Your task to perform on an android device: toggle show notifications on the lock screen Image 0: 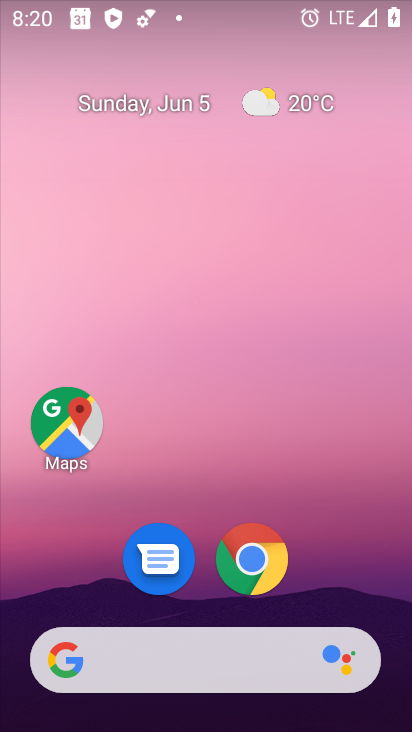
Step 0: drag from (359, 425) to (350, 83)
Your task to perform on an android device: toggle show notifications on the lock screen Image 1: 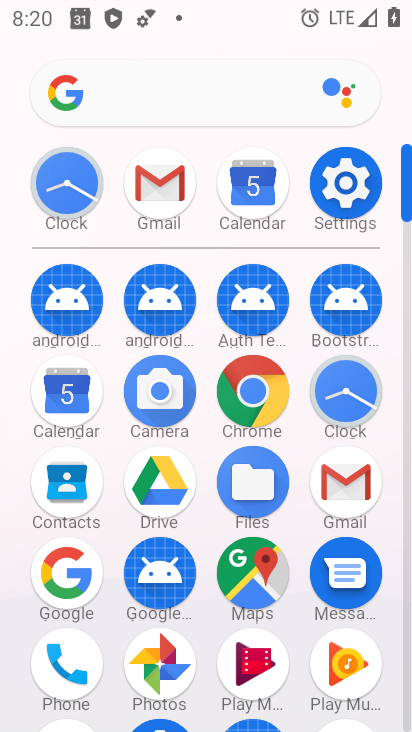
Step 1: click (339, 179)
Your task to perform on an android device: toggle show notifications on the lock screen Image 2: 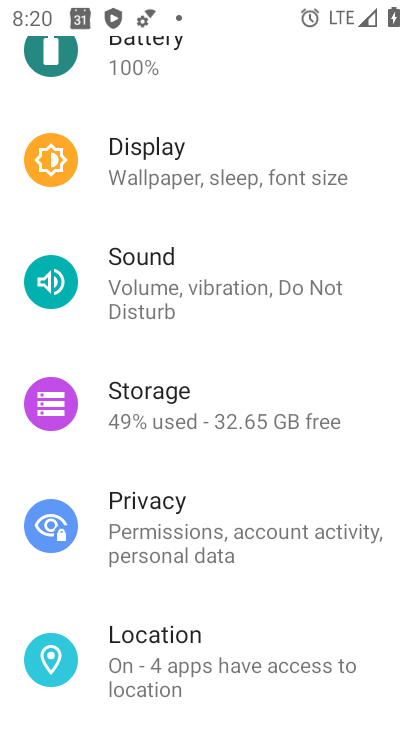
Step 2: drag from (167, 158) to (244, 728)
Your task to perform on an android device: toggle show notifications on the lock screen Image 3: 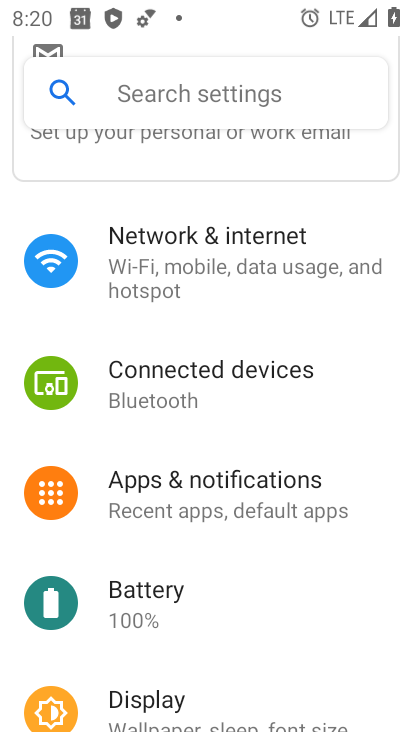
Step 3: click (272, 494)
Your task to perform on an android device: toggle show notifications on the lock screen Image 4: 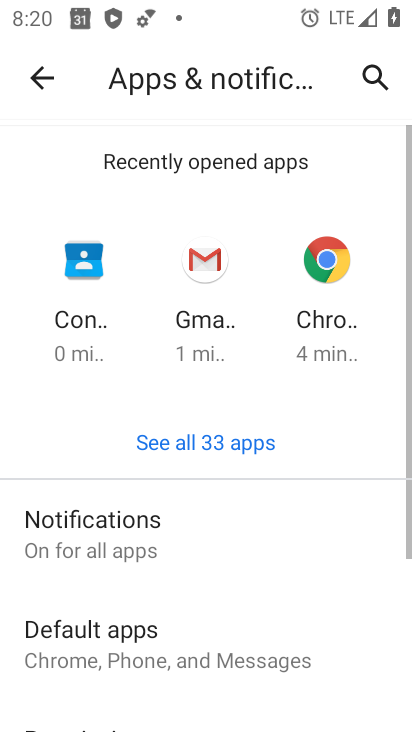
Step 4: click (155, 543)
Your task to perform on an android device: toggle show notifications on the lock screen Image 5: 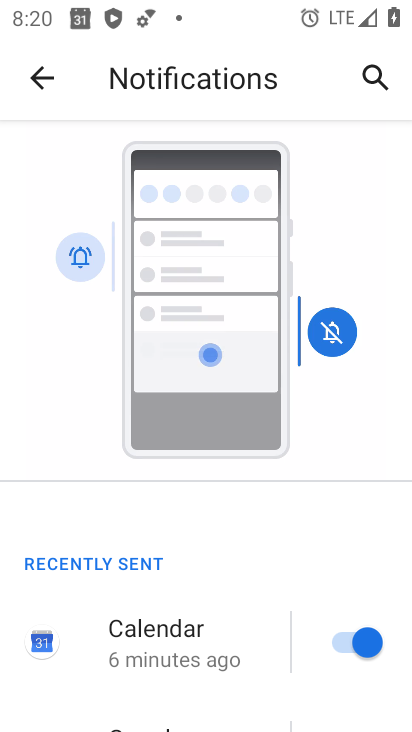
Step 5: drag from (283, 460) to (318, 103)
Your task to perform on an android device: toggle show notifications on the lock screen Image 6: 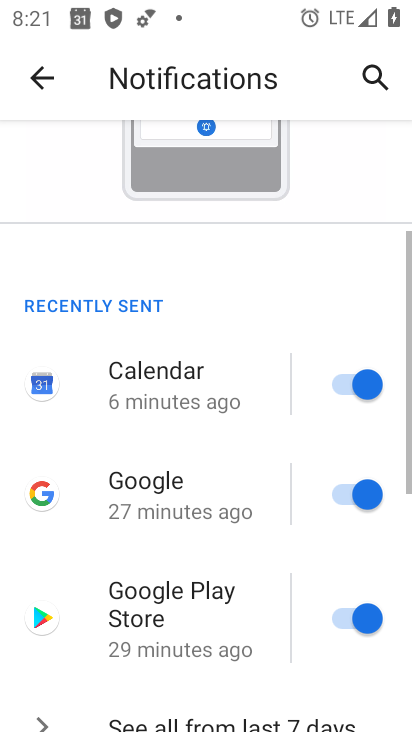
Step 6: click (320, 82)
Your task to perform on an android device: toggle show notifications on the lock screen Image 7: 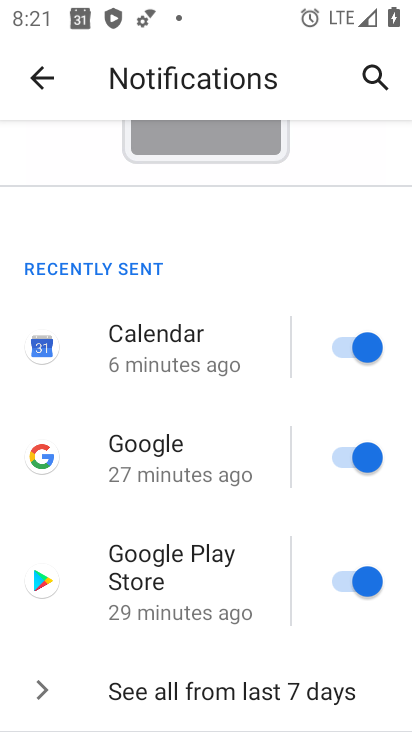
Step 7: drag from (290, 536) to (356, 147)
Your task to perform on an android device: toggle show notifications on the lock screen Image 8: 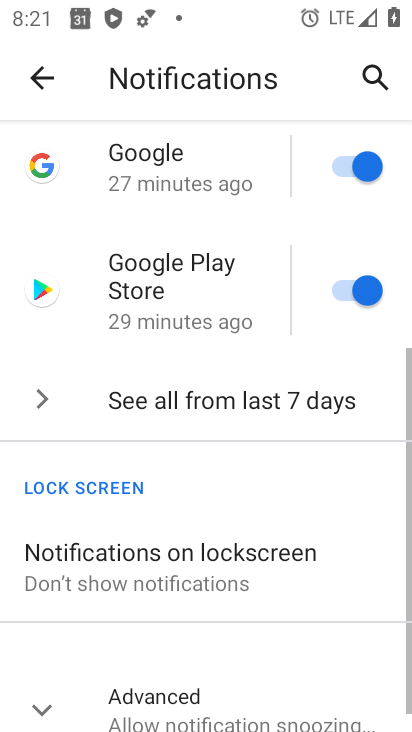
Step 8: click (368, 116)
Your task to perform on an android device: toggle show notifications on the lock screen Image 9: 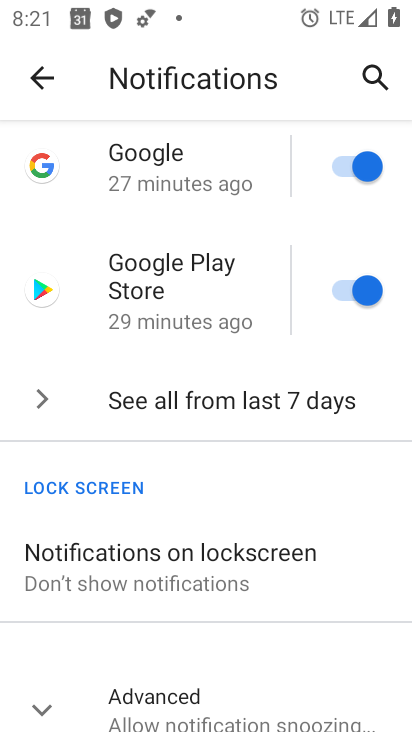
Step 9: click (233, 571)
Your task to perform on an android device: toggle show notifications on the lock screen Image 10: 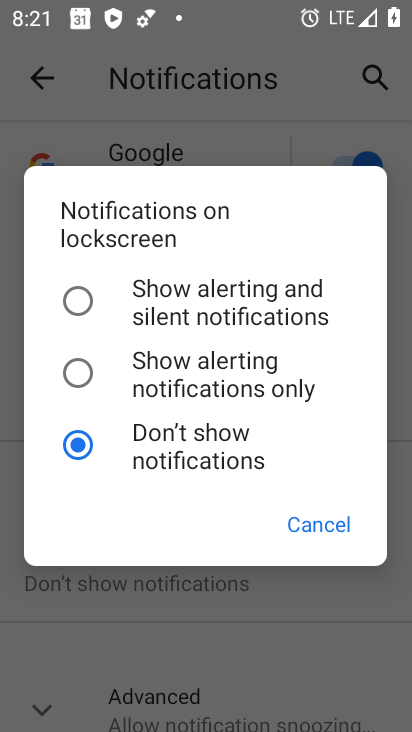
Step 10: click (219, 377)
Your task to perform on an android device: toggle show notifications on the lock screen Image 11: 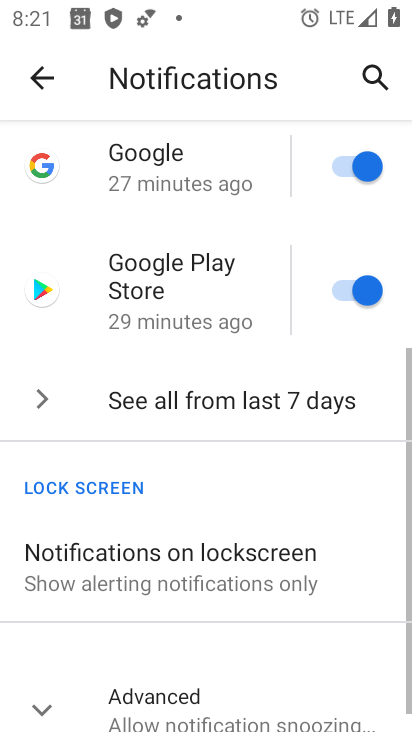
Step 11: task complete